Your task to perform on an android device: check out phone information Image 0: 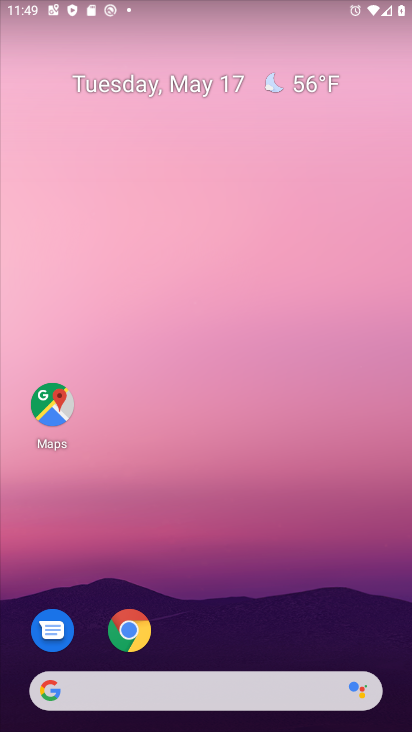
Step 0: press home button
Your task to perform on an android device: check out phone information Image 1: 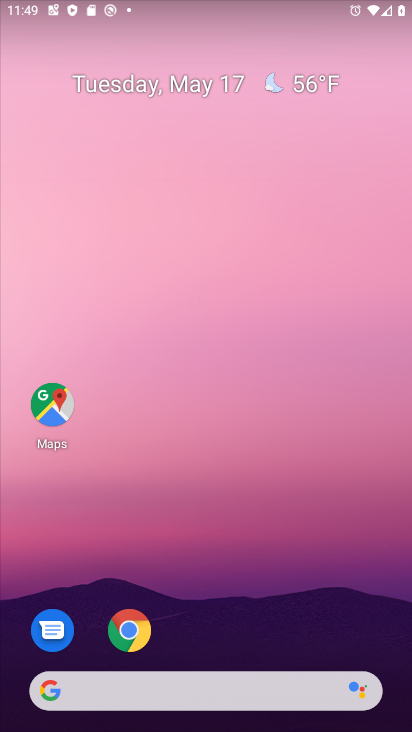
Step 1: drag from (352, 604) to (295, 215)
Your task to perform on an android device: check out phone information Image 2: 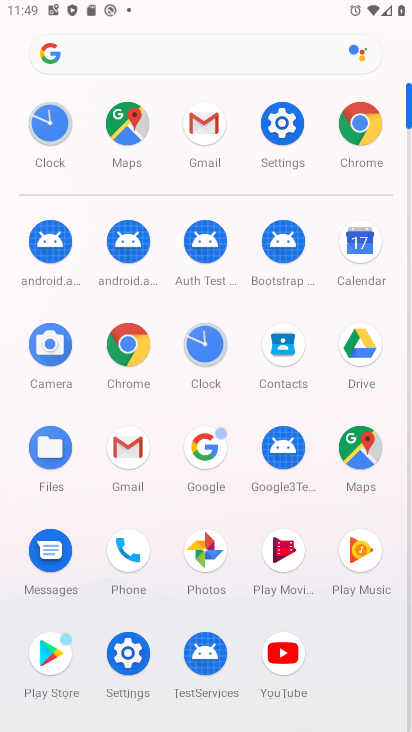
Step 2: click (107, 567)
Your task to perform on an android device: check out phone information Image 3: 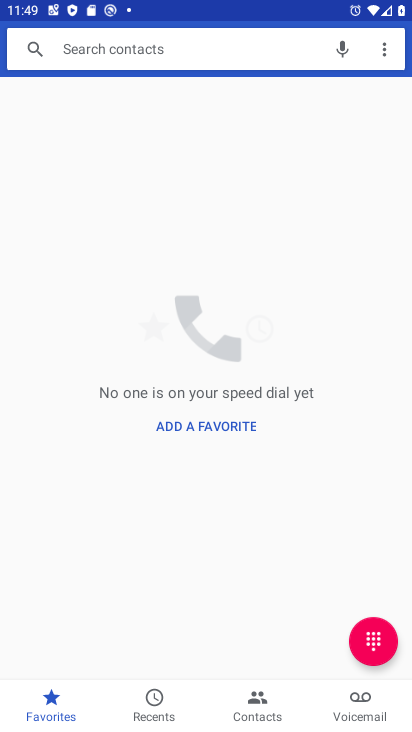
Step 3: task complete